Your task to perform on an android device: delete a single message in the gmail app Image 0: 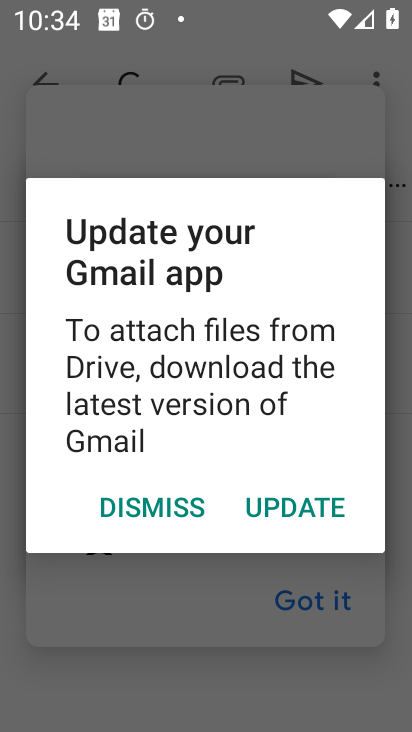
Step 0: press home button
Your task to perform on an android device: delete a single message in the gmail app Image 1: 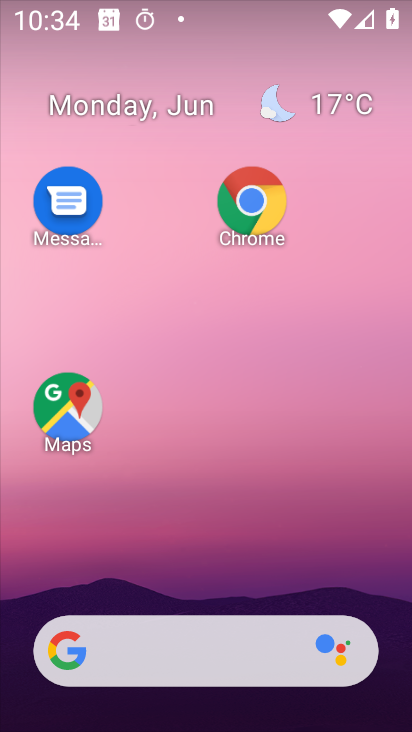
Step 1: drag from (242, 594) to (216, 129)
Your task to perform on an android device: delete a single message in the gmail app Image 2: 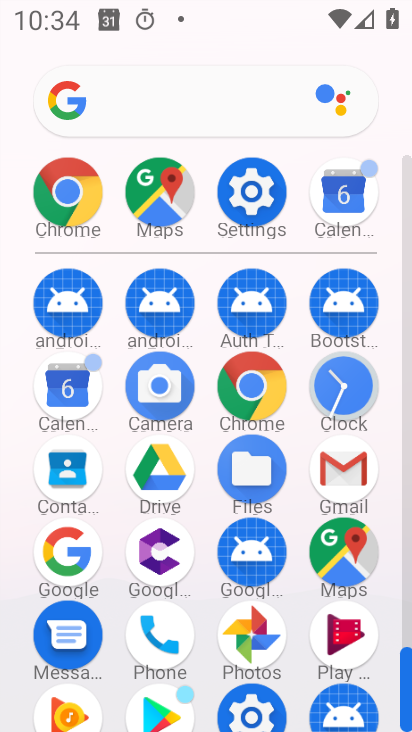
Step 2: click (346, 460)
Your task to perform on an android device: delete a single message in the gmail app Image 3: 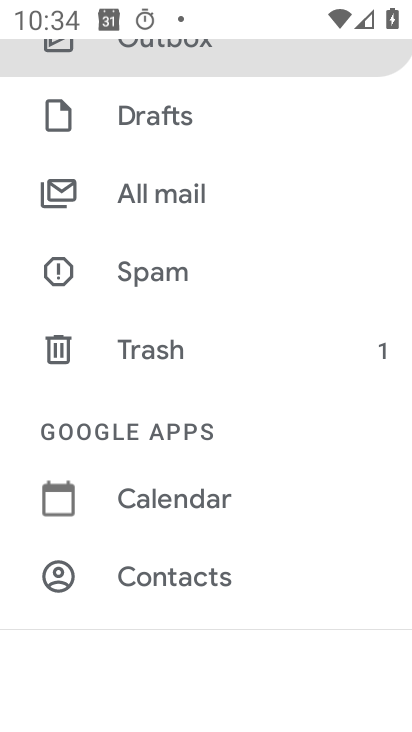
Step 3: click (257, 201)
Your task to perform on an android device: delete a single message in the gmail app Image 4: 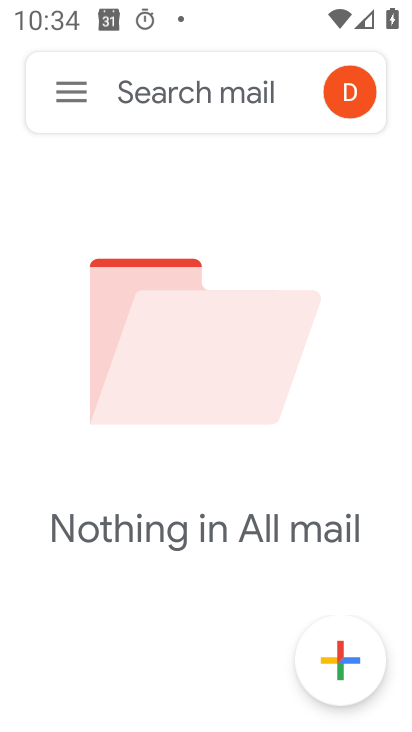
Step 4: task complete